Your task to perform on an android device: What's on my calendar tomorrow? Image 0: 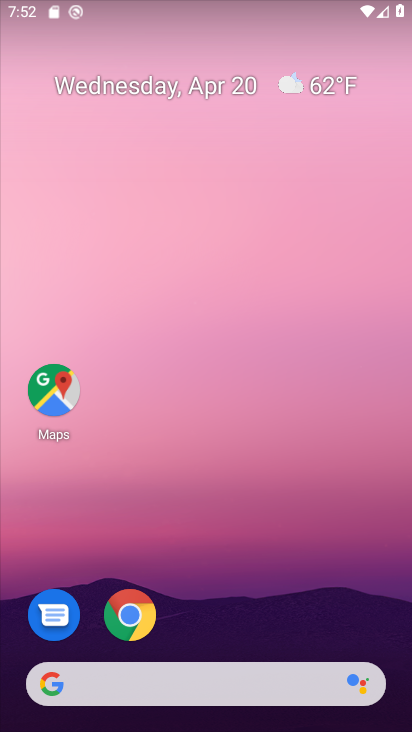
Step 0: drag from (198, 506) to (349, 2)
Your task to perform on an android device: What's on my calendar tomorrow? Image 1: 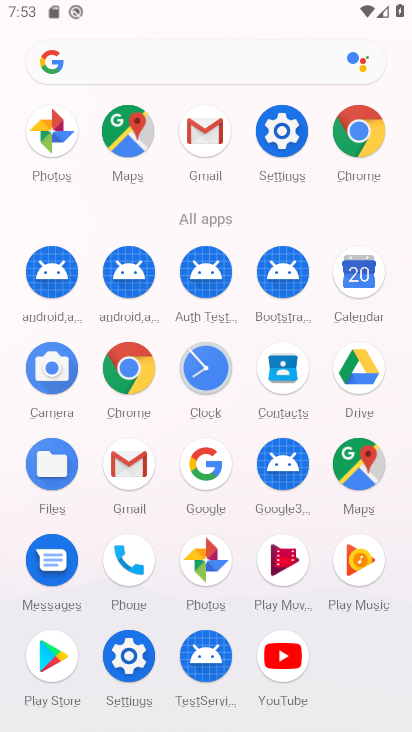
Step 1: click (364, 278)
Your task to perform on an android device: What's on my calendar tomorrow? Image 2: 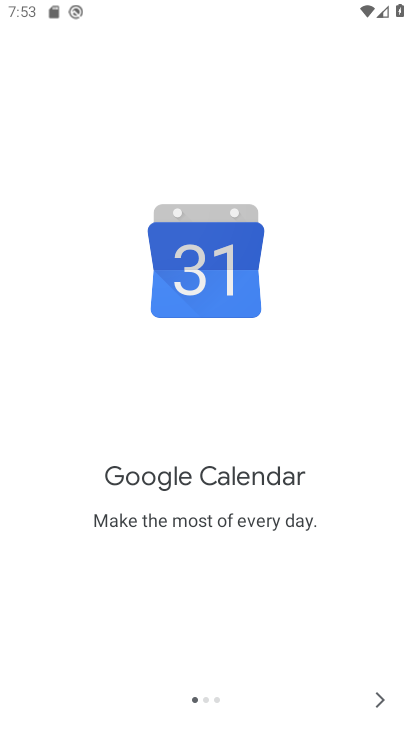
Step 2: click (379, 704)
Your task to perform on an android device: What's on my calendar tomorrow? Image 3: 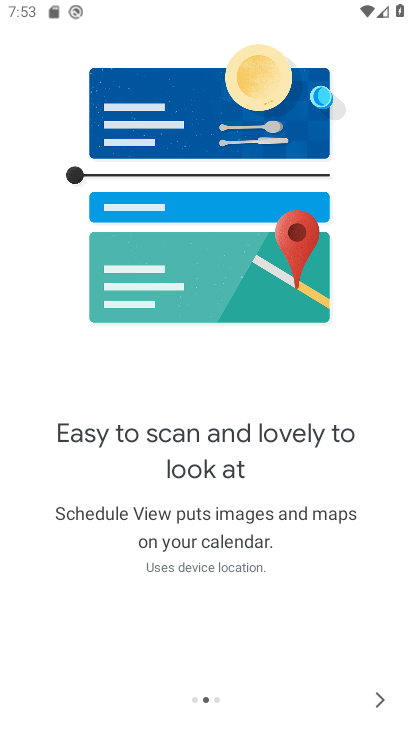
Step 3: click (378, 690)
Your task to perform on an android device: What's on my calendar tomorrow? Image 4: 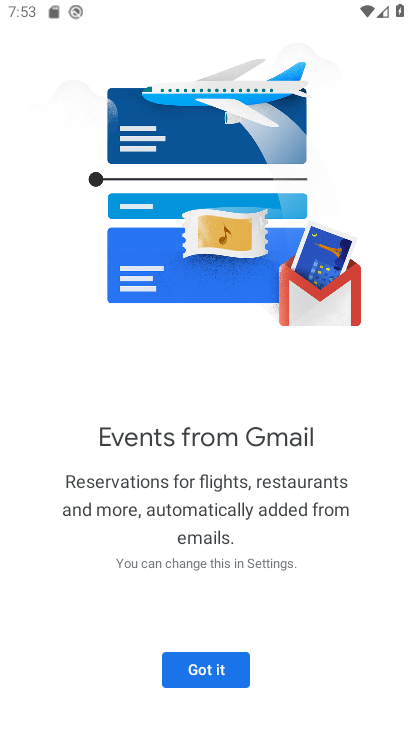
Step 4: click (174, 671)
Your task to perform on an android device: What's on my calendar tomorrow? Image 5: 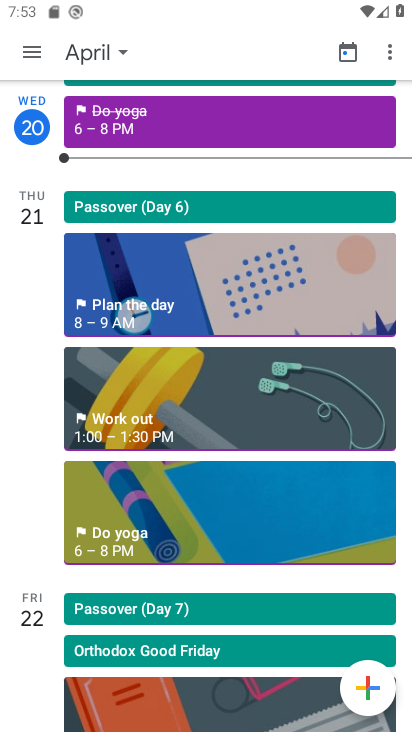
Step 5: click (23, 49)
Your task to perform on an android device: What's on my calendar tomorrow? Image 6: 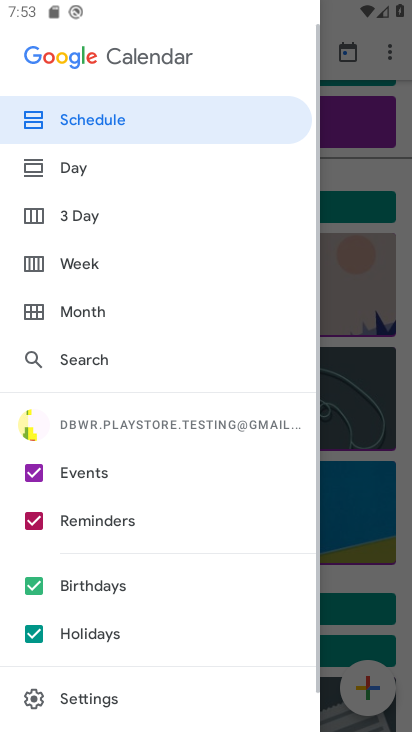
Step 6: click (73, 225)
Your task to perform on an android device: What's on my calendar tomorrow? Image 7: 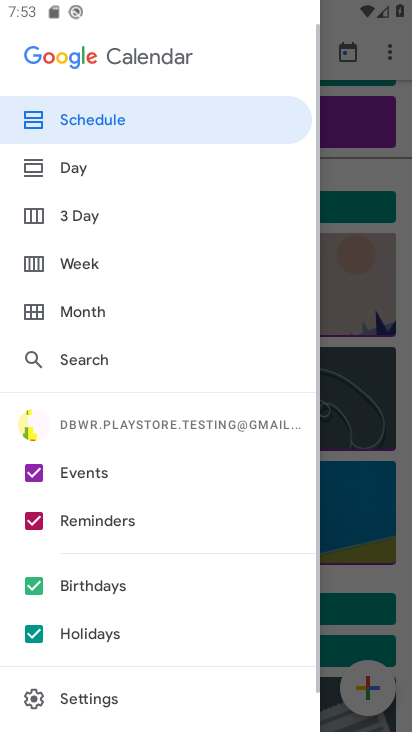
Step 7: click (71, 211)
Your task to perform on an android device: What's on my calendar tomorrow? Image 8: 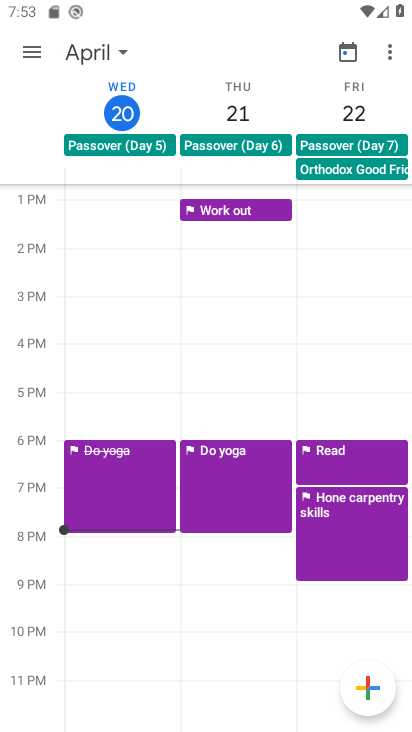
Step 8: task complete